Your task to perform on an android device: empty trash in the gmail app Image 0: 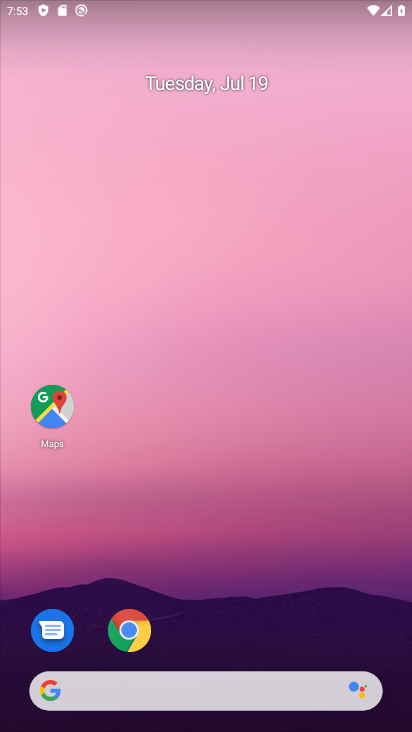
Step 0: drag from (268, 626) to (304, 192)
Your task to perform on an android device: empty trash in the gmail app Image 1: 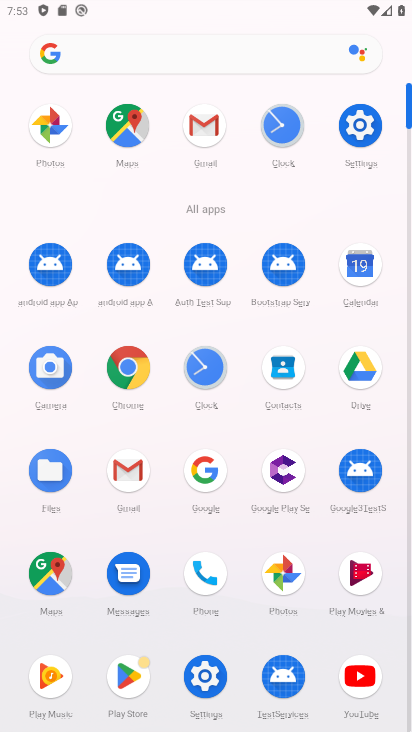
Step 1: click (199, 127)
Your task to perform on an android device: empty trash in the gmail app Image 2: 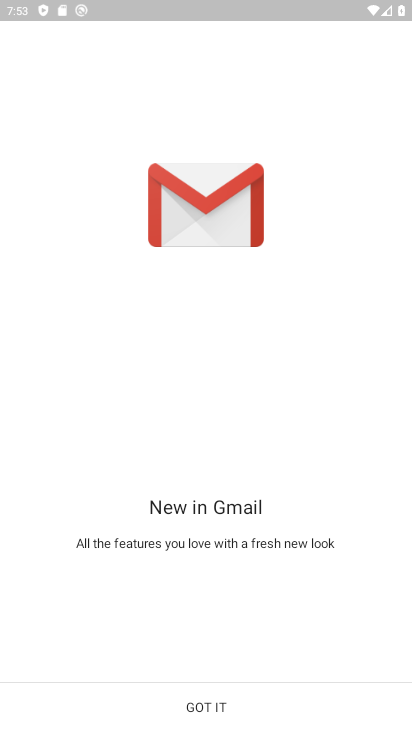
Step 2: click (216, 696)
Your task to perform on an android device: empty trash in the gmail app Image 3: 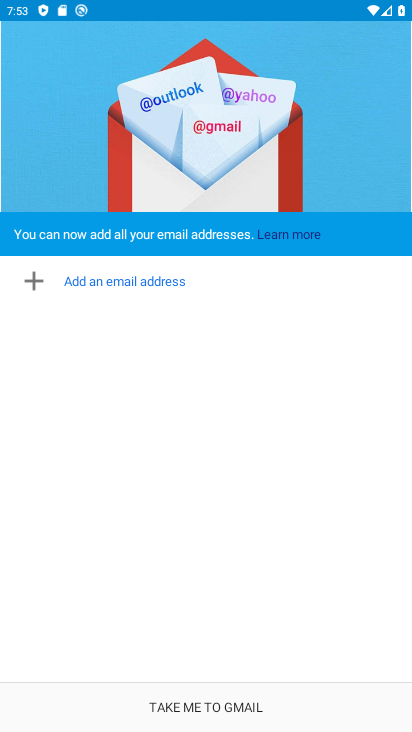
Step 3: click (216, 696)
Your task to perform on an android device: empty trash in the gmail app Image 4: 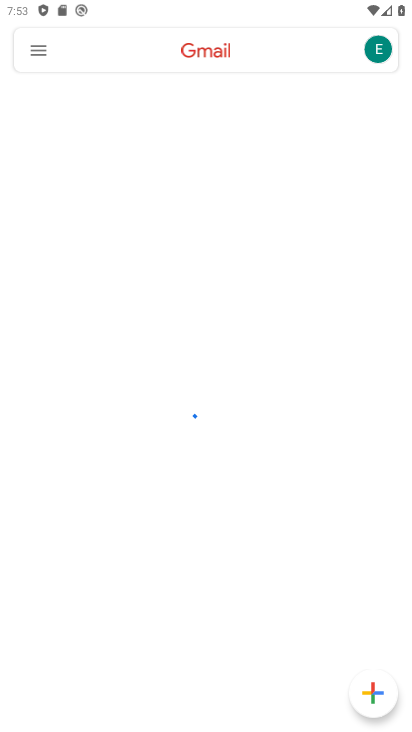
Step 4: click (38, 50)
Your task to perform on an android device: empty trash in the gmail app Image 5: 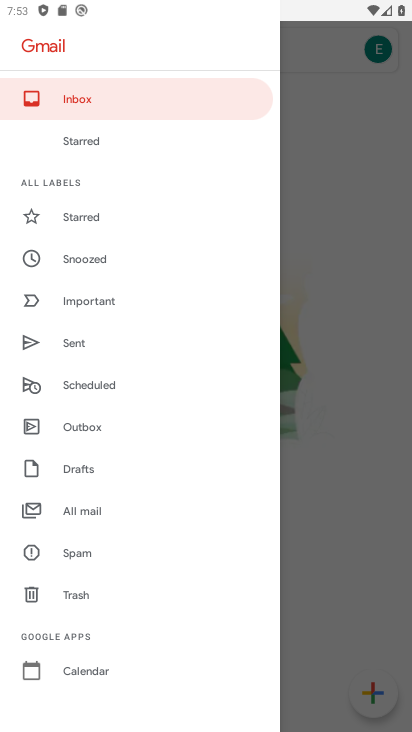
Step 5: click (68, 597)
Your task to perform on an android device: empty trash in the gmail app Image 6: 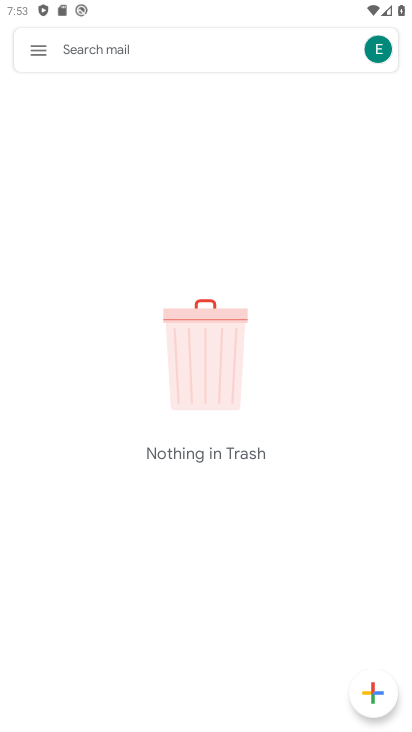
Step 6: task complete